Your task to perform on an android device: Open Google Maps Image 0: 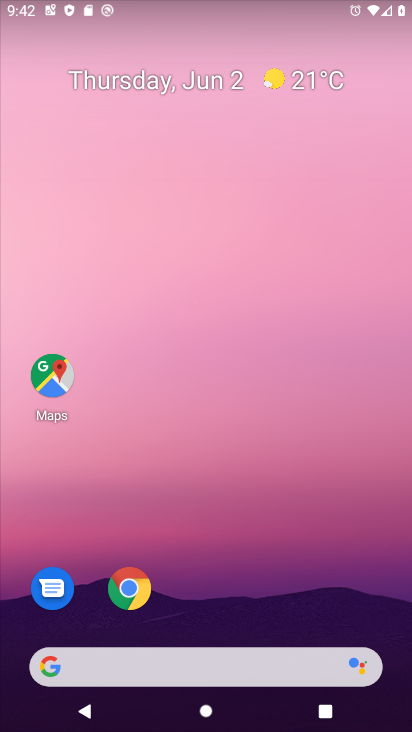
Step 0: click (62, 388)
Your task to perform on an android device: Open Google Maps Image 1: 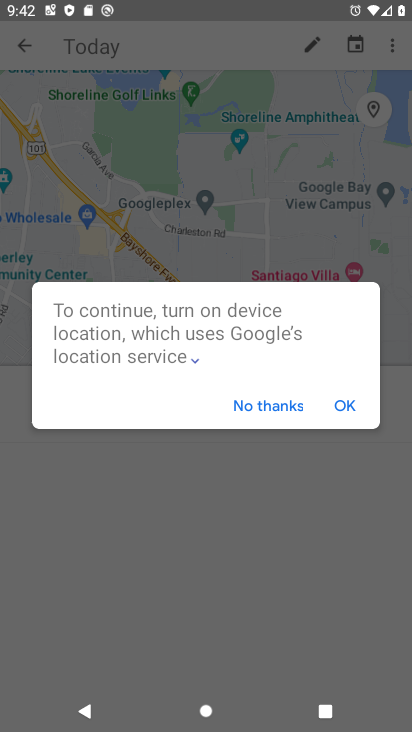
Step 1: task complete